Your task to perform on an android device: Open Reddit.com Image 0: 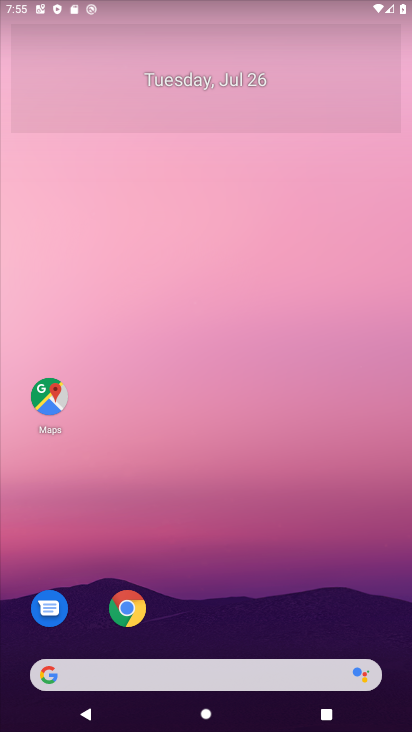
Step 0: click (87, 679)
Your task to perform on an android device: Open Reddit.com Image 1: 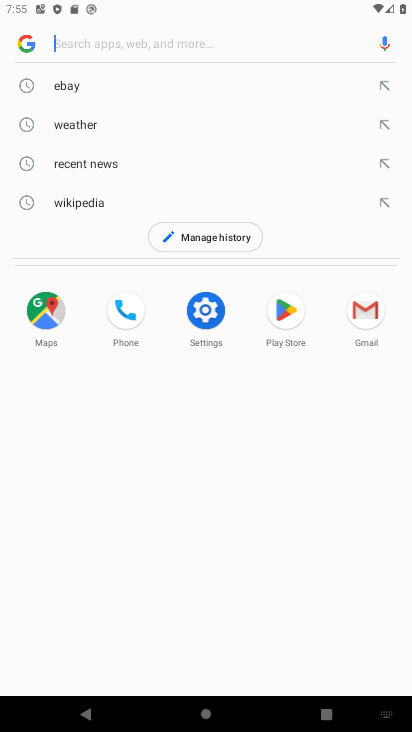
Step 1: type "Reddit.com"
Your task to perform on an android device: Open Reddit.com Image 2: 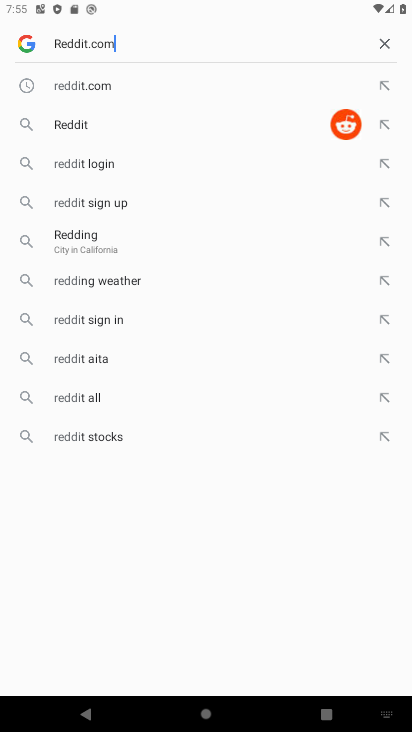
Step 2: type ""
Your task to perform on an android device: Open Reddit.com Image 3: 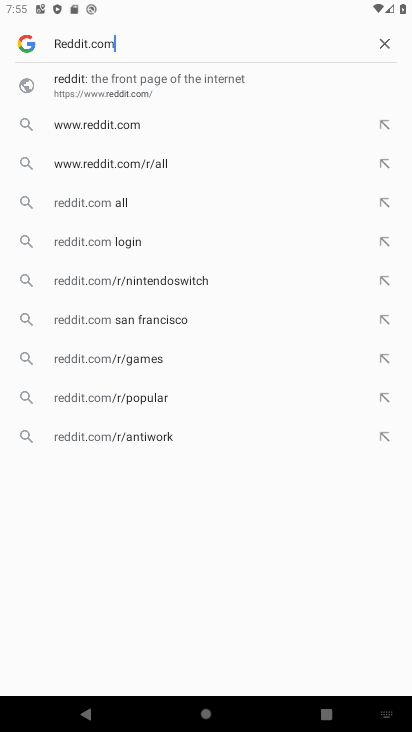
Step 3: type ""
Your task to perform on an android device: Open Reddit.com Image 4: 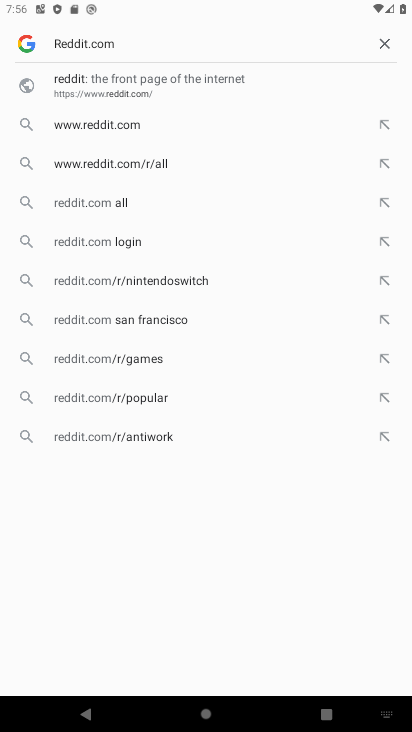
Step 4: task complete